Your task to perform on an android device: Open eBay Image 0: 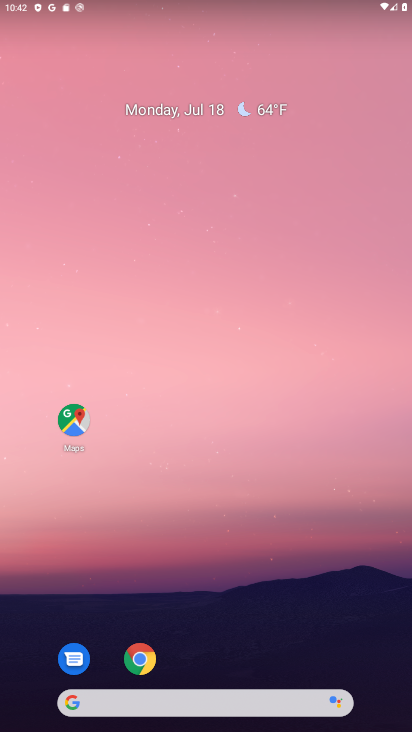
Step 0: press home button
Your task to perform on an android device: Open eBay Image 1: 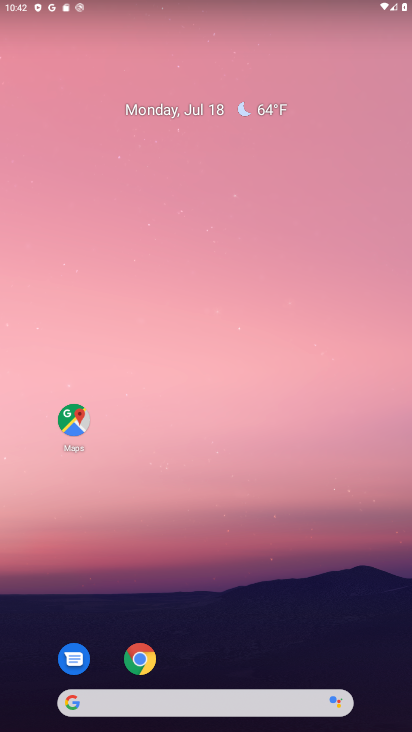
Step 1: click (144, 666)
Your task to perform on an android device: Open eBay Image 2: 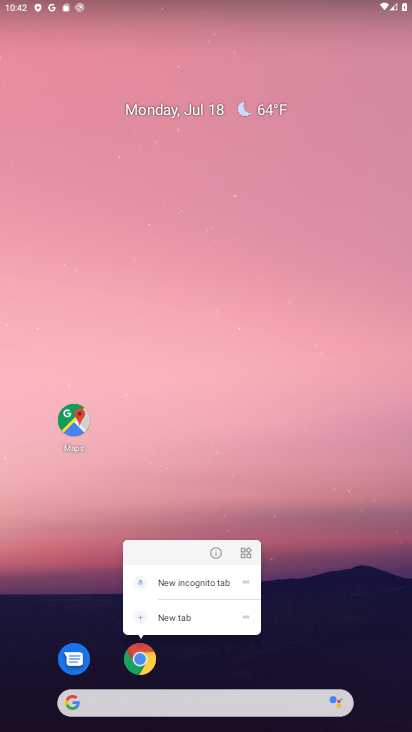
Step 2: click (144, 666)
Your task to perform on an android device: Open eBay Image 3: 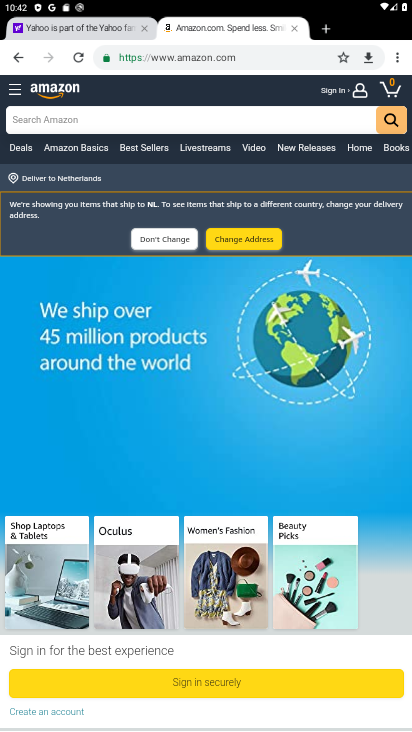
Step 3: click (167, 55)
Your task to perform on an android device: Open eBay Image 4: 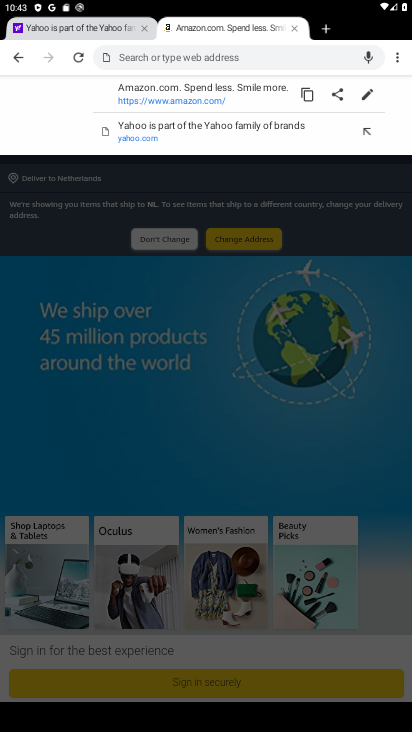
Step 4: type "eBay"
Your task to perform on an android device: Open eBay Image 5: 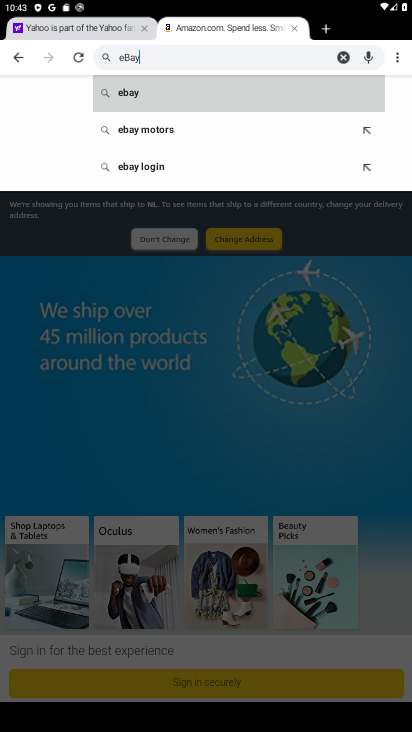
Step 5: click (241, 103)
Your task to perform on an android device: Open eBay Image 6: 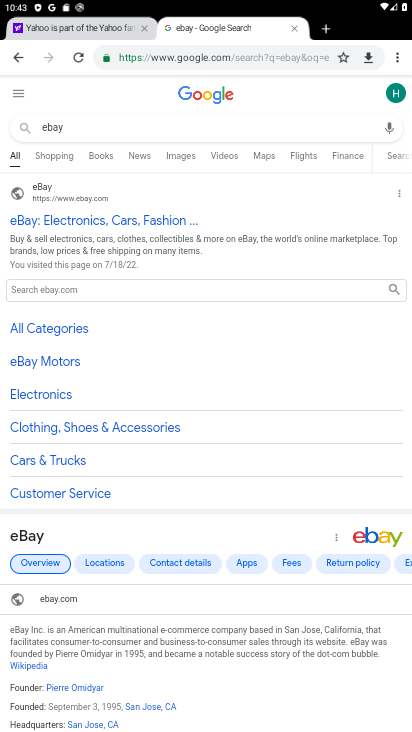
Step 6: click (78, 223)
Your task to perform on an android device: Open eBay Image 7: 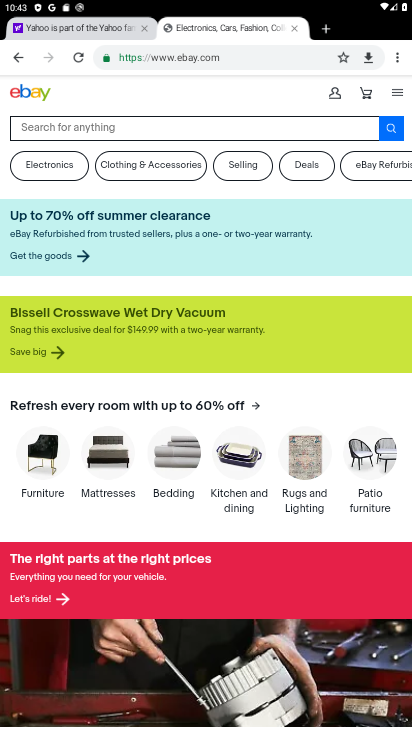
Step 7: task complete